Your task to perform on an android device: turn off location Image 0: 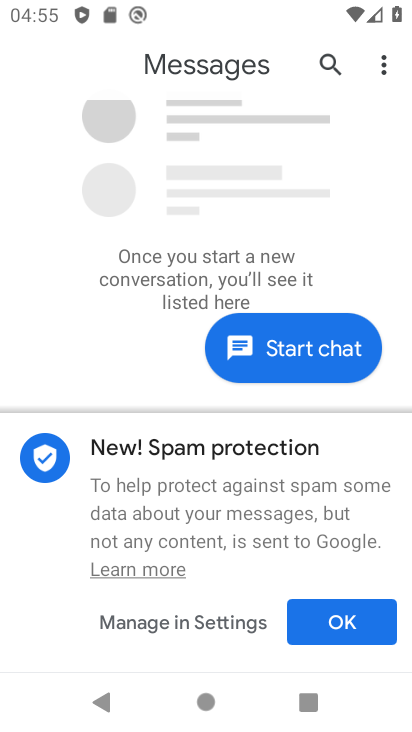
Step 0: press home button
Your task to perform on an android device: turn off location Image 1: 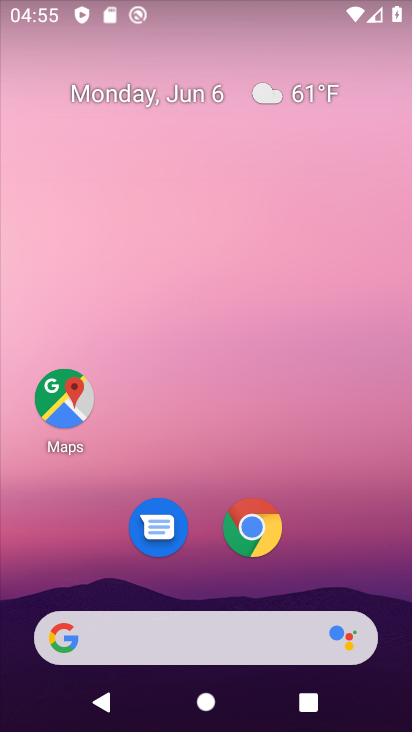
Step 1: drag from (391, 708) to (336, 98)
Your task to perform on an android device: turn off location Image 2: 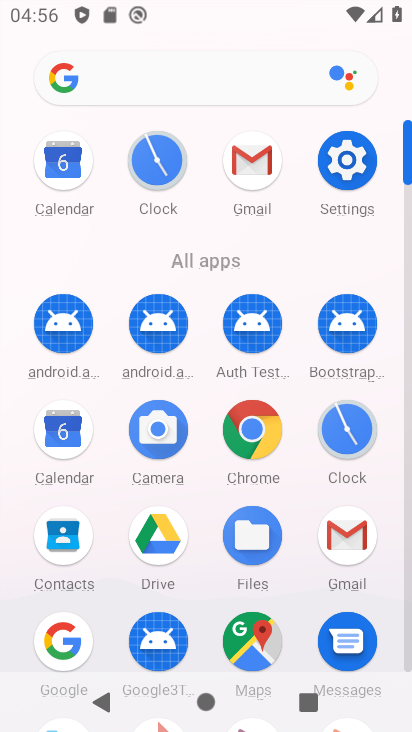
Step 2: click (354, 168)
Your task to perform on an android device: turn off location Image 3: 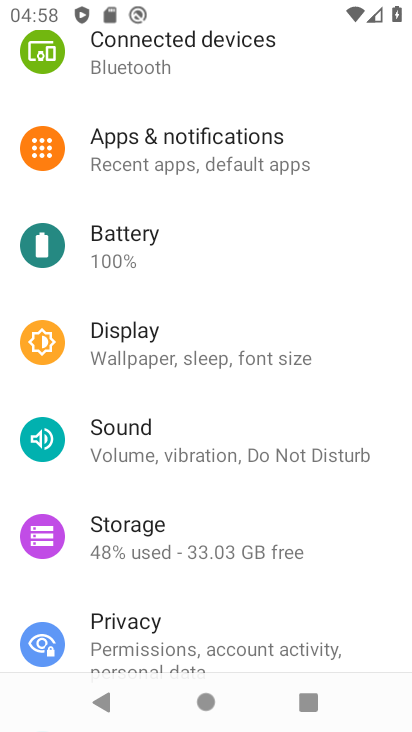
Step 3: drag from (236, 197) to (264, 552)
Your task to perform on an android device: turn off location Image 4: 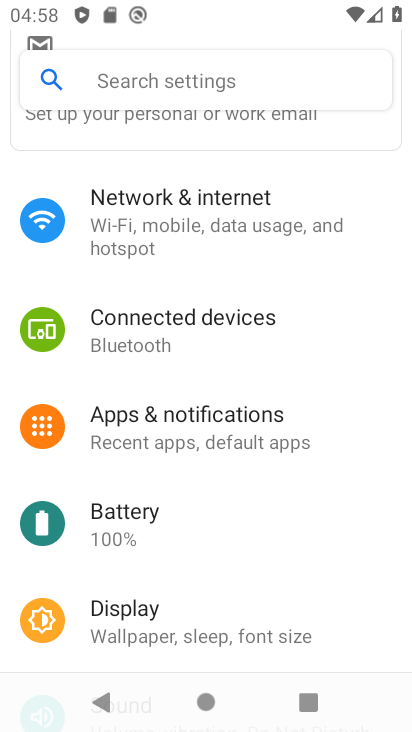
Step 4: drag from (247, 602) to (193, 155)
Your task to perform on an android device: turn off location Image 5: 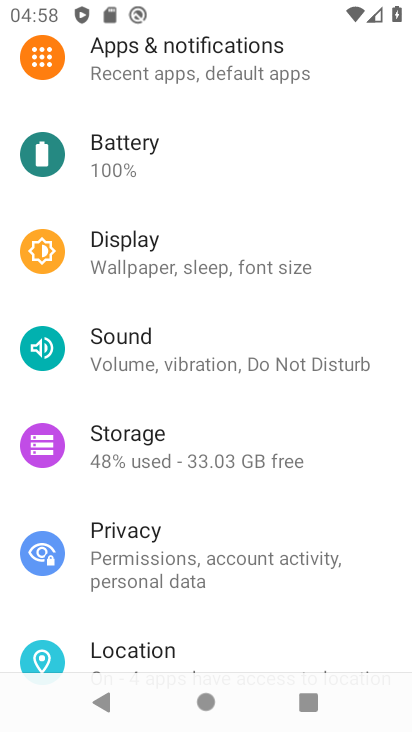
Step 5: drag from (223, 631) to (199, 309)
Your task to perform on an android device: turn off location Image 6: 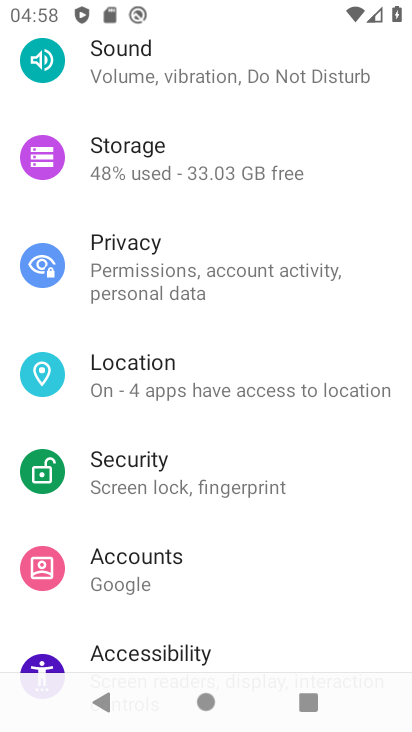
Step 6: click (134, 354)
Your task to perform on an android device: turn off location Image 7: 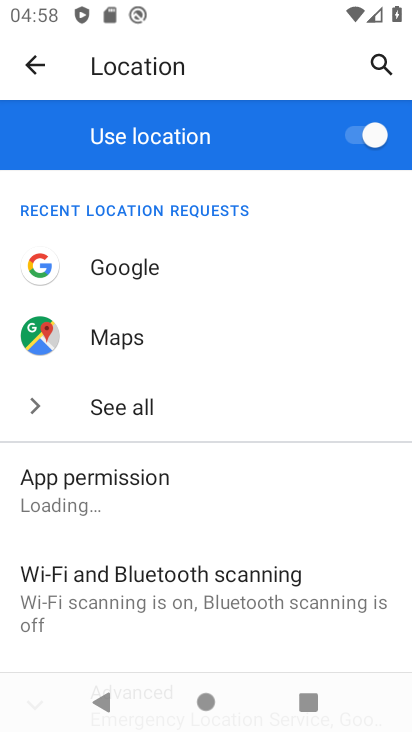
Step 7: click (348, 144)
Your task to perform on an android device: turn off location Image 8: 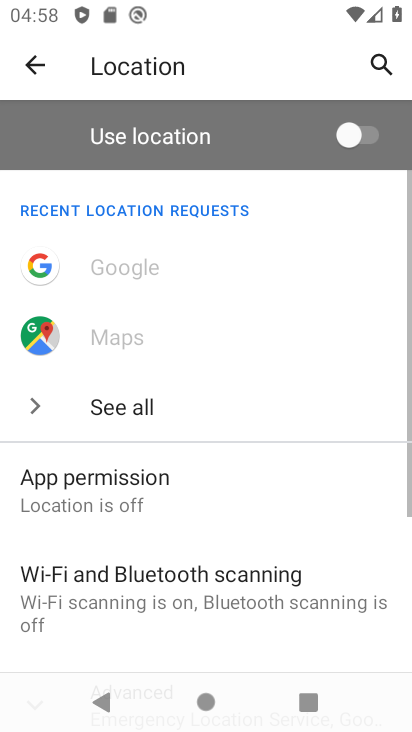
Step 8: task complete